Your task to perform on an android device: toggle location history Image 0: 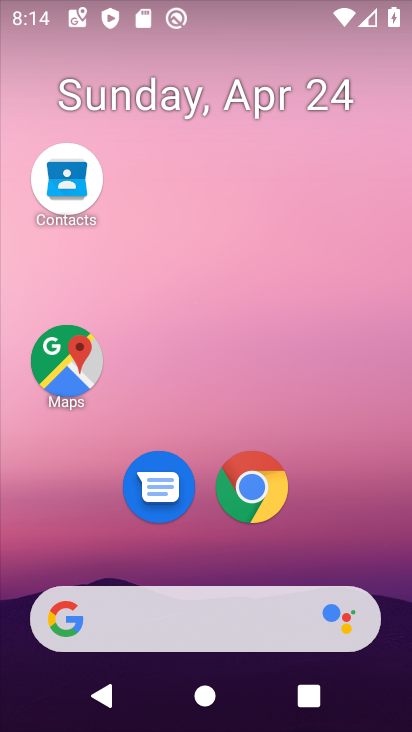
Step 0: drag from (201, 579) to (264, 28)
Your task to perform on an android device: toggle location history Image 1: 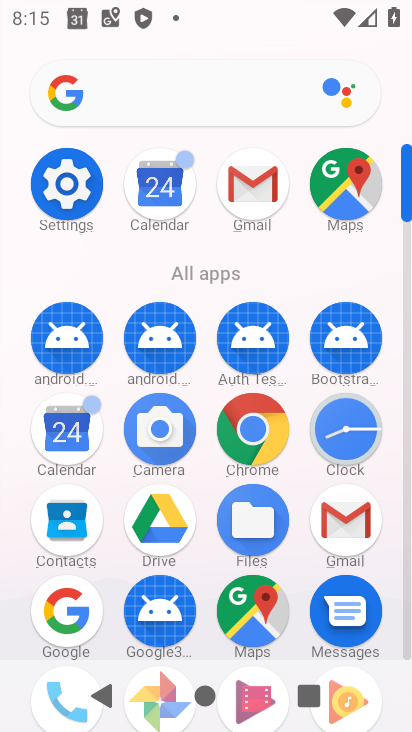
Step 1: click (76, 196)
Your task to perform on an android device: toggle location history Image 2: 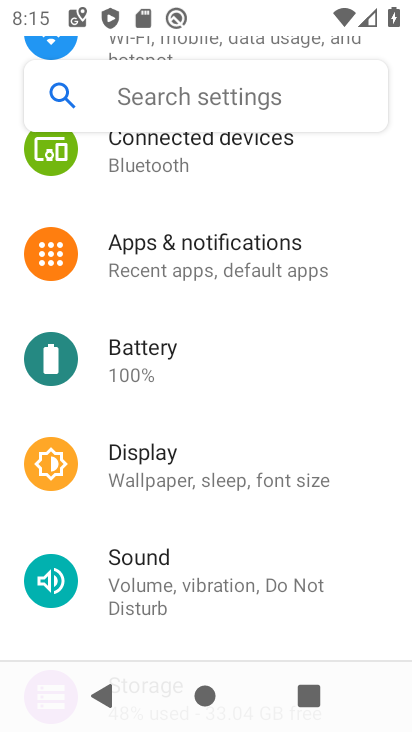
Step 2: drag from (223, 220) to (225, 546)
Your task to perform on an android device: toggle location history Image 3: 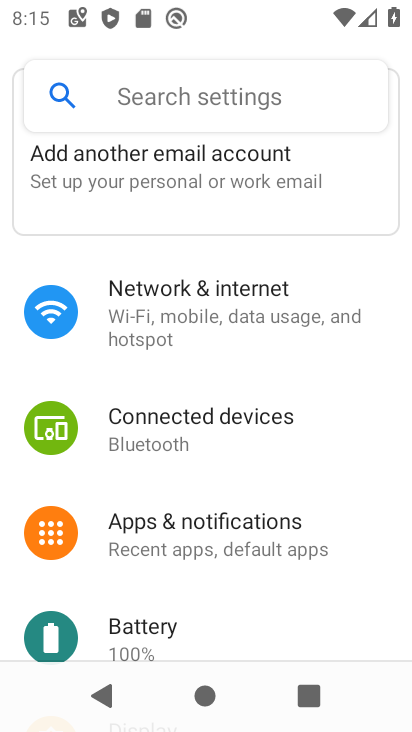
Step 3: drag from (213, 533) to (119, 13)
Your task to perform on an android device: toggle location history Image 4: 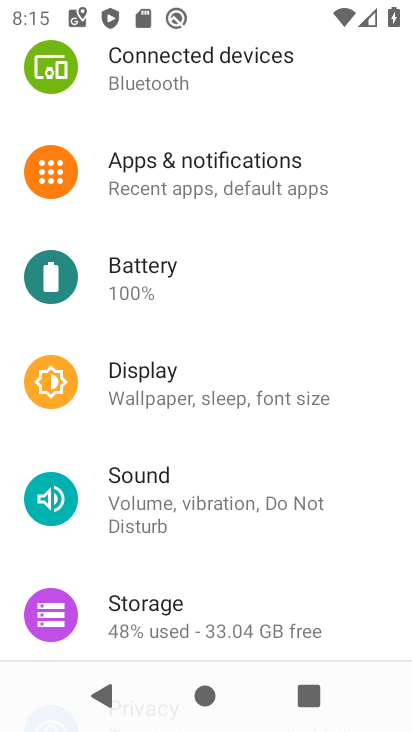
Step 4: drag from (137, 626) to (74, 32)
Your task to perform on an android device: toggle location history Image 5: 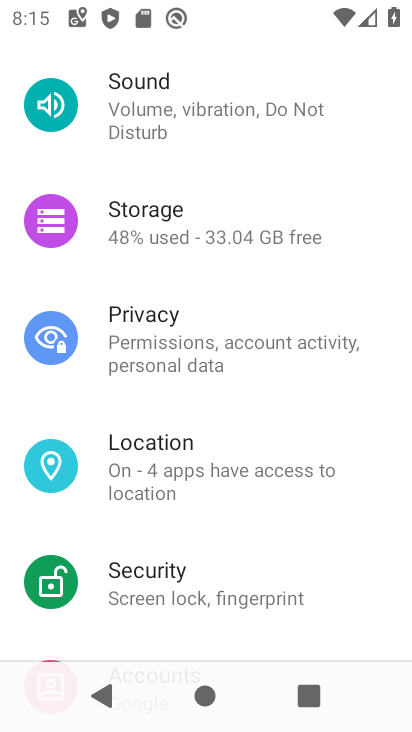
Step 5: click (173, 443)
Your task to perform on an android device: toggle location history Image 6: 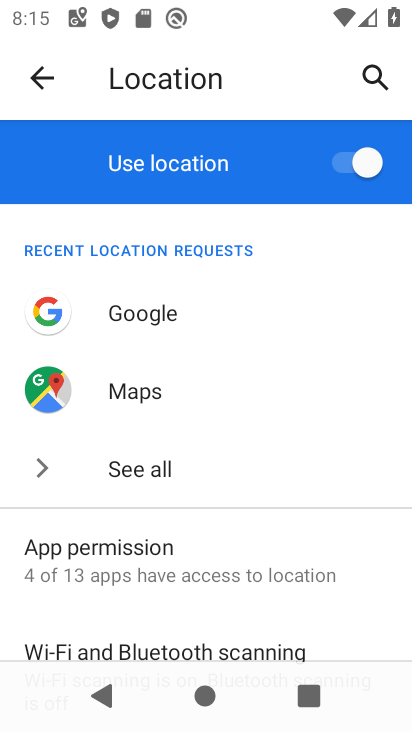
Step 6: drag from (217, 517) to (185, 70)
Your task to perform on an android device: toggle location history Image 7: 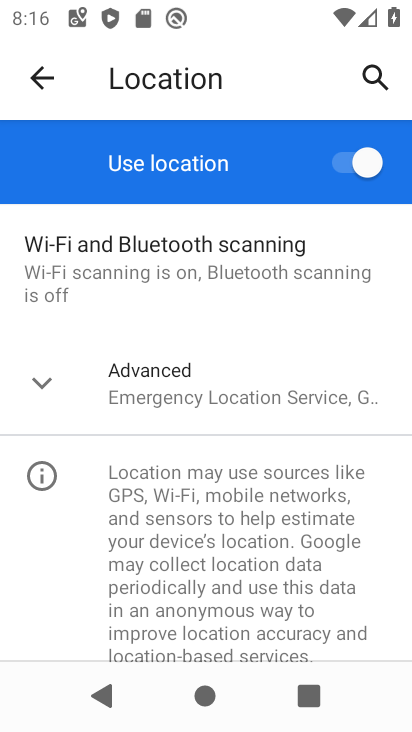
Step 7: click (211, 374)
Your task to perform on an android device: toggle location history Image 8: 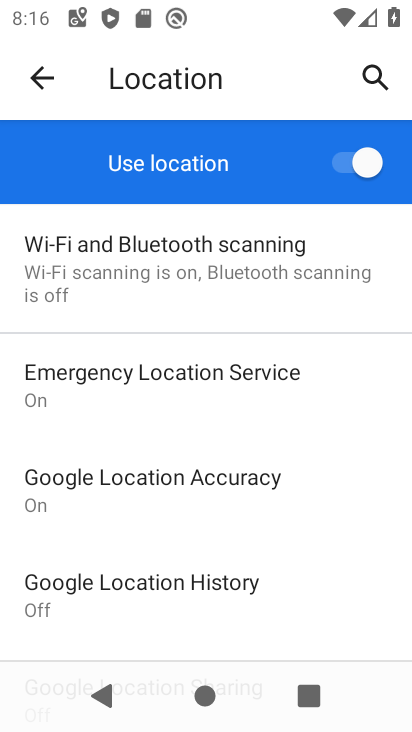
Step 8: click (171, 582)
Your task to perform on an android device: toggle location history Image 9: 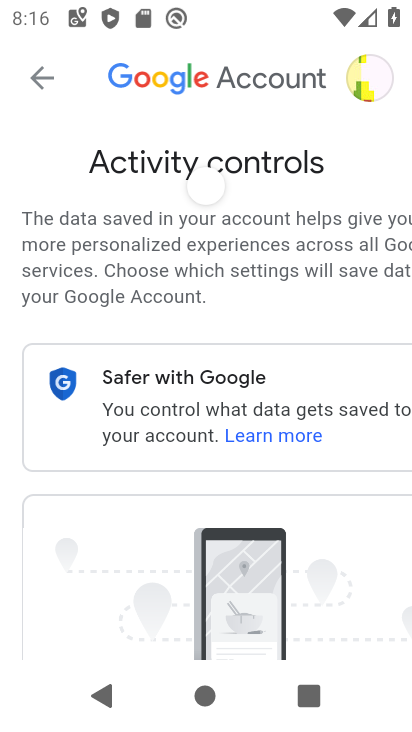
Step 9: drag from (274, 546) to (210, 19)
Your task to perform on an android device: toggle location history Image 10: 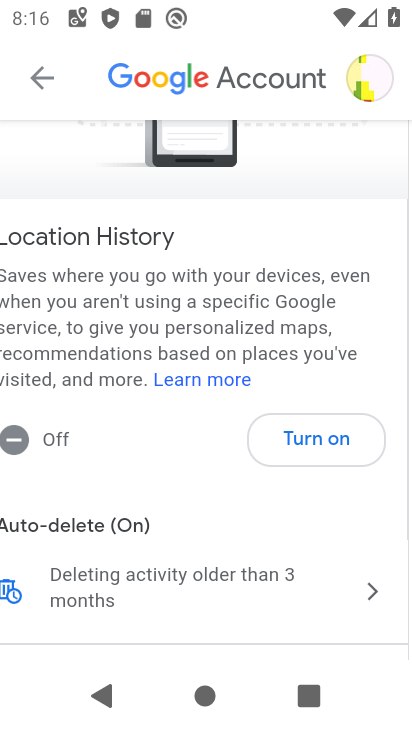
Step 10: click (325, 430)
Your task to perform on an android device: toggle location history Image 11: 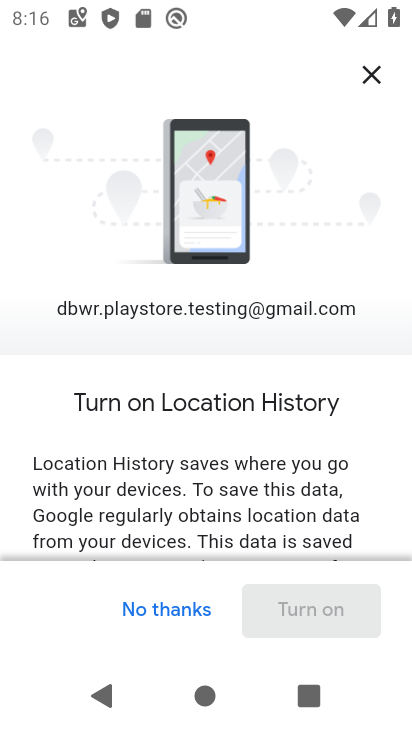
Step 11: drag from (304, 536) to (274, 1)
Your task to perform on an android device: toggle location history Image 12: 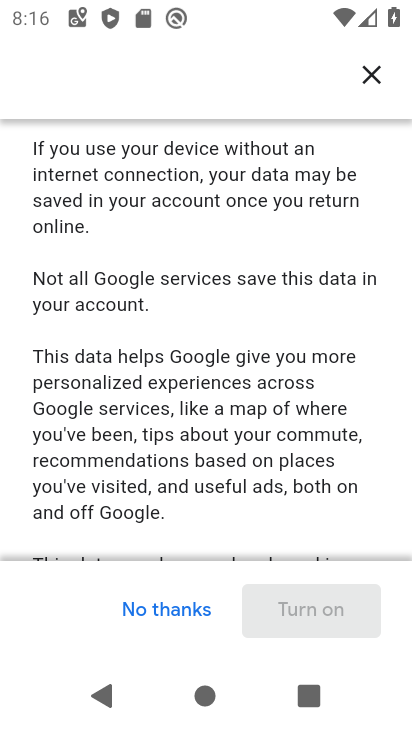
Step 12: drag from (262, 502) to (257, 17)
Your task to perform on an android device: toggle location history Image 13: 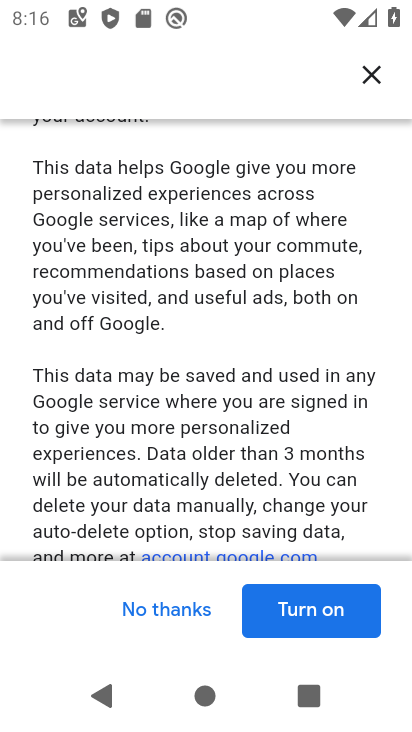
Step 13: click (310, 626)
Your task to perform on an android device: toggle location history Image 14: 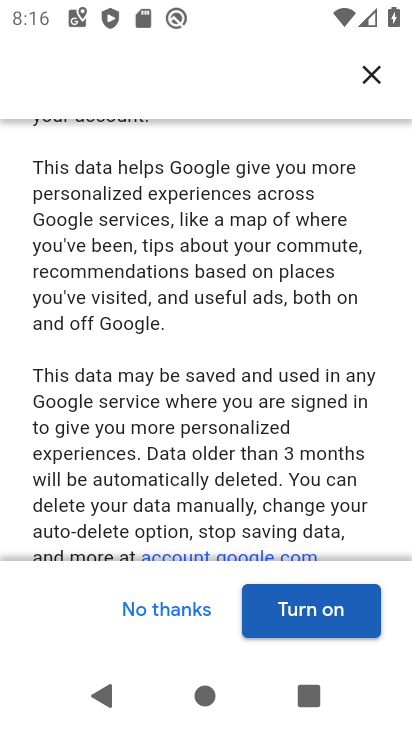
Step 14: click (314, 595)
Your task to perform on an android device: toggle location history Image 15: 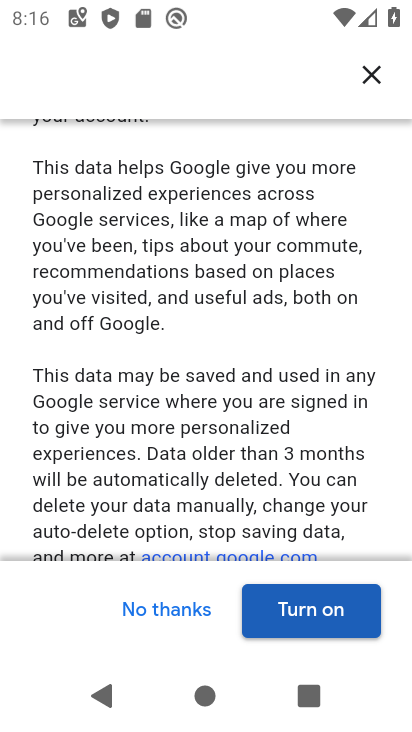
Step 15: click (311, 610)
Your task to perform on an android device: toggle location history Image 16: 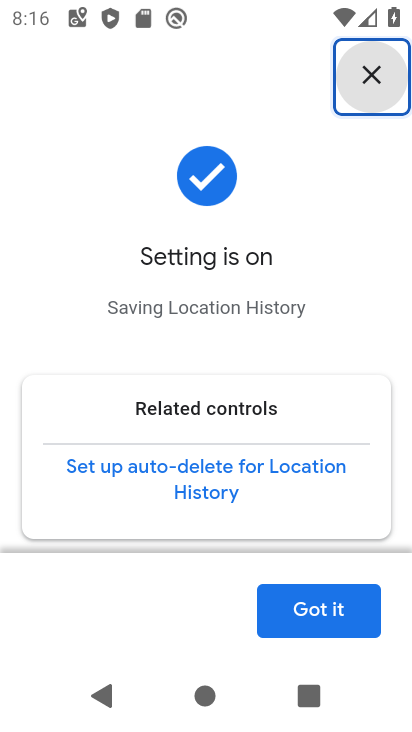
Step 16: click (333, 624)
Your task to perform on an android device: toggle location history Image 17: 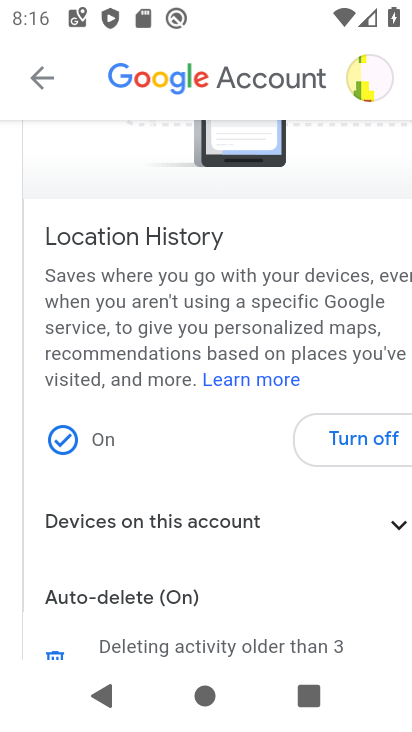
Step 17: task complete